Your task to perform on an android device: turn on translation in the chrome app Image 0: 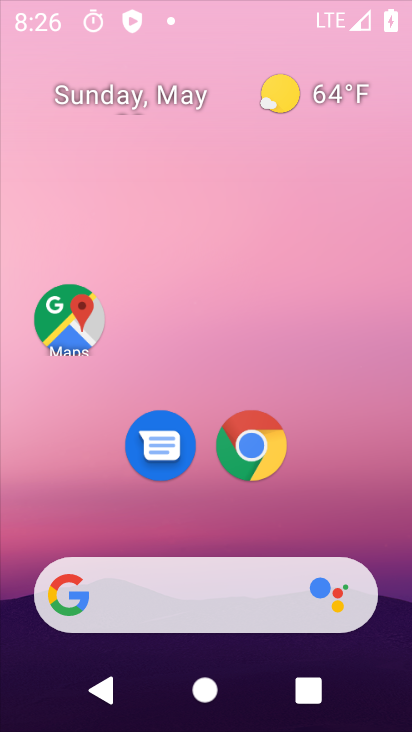
Step 0: click (335, 117)
Your task to perform on an android device: turn on translation in the chrome app Image 1: 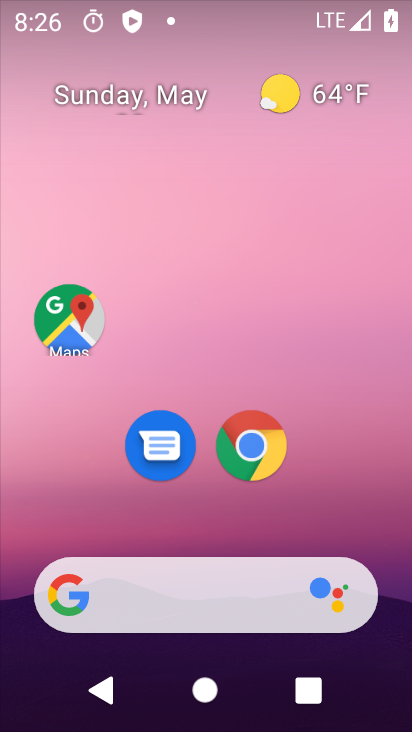
Step 1: drag from (208, 546) to (260, 140)
Your task to perform on an android device: turn on translation in the chrome app Image 2: 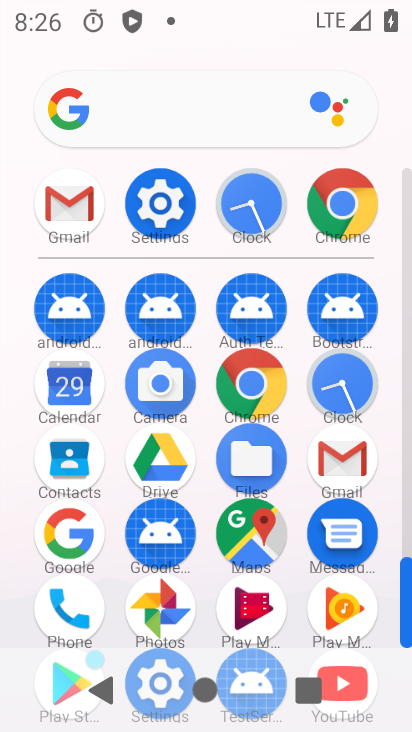
Step 2: click (342, 217)
Your task to perform on an android device: turn on translation in the chrome app Image 3: 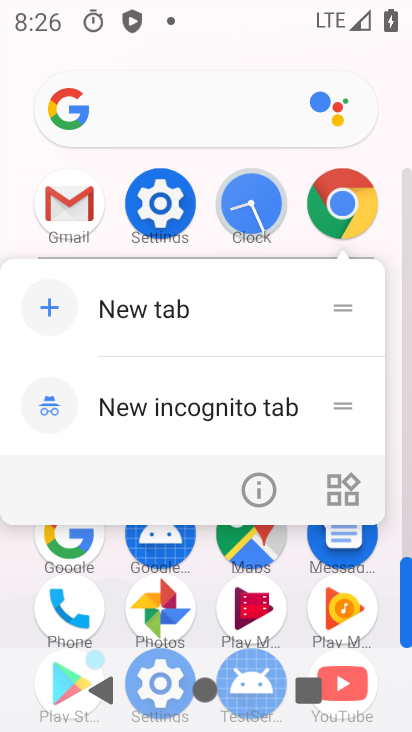
Step 3: click (268, 479)
Your task to perform on an android device: turn on translation in the chrome app Image 4: 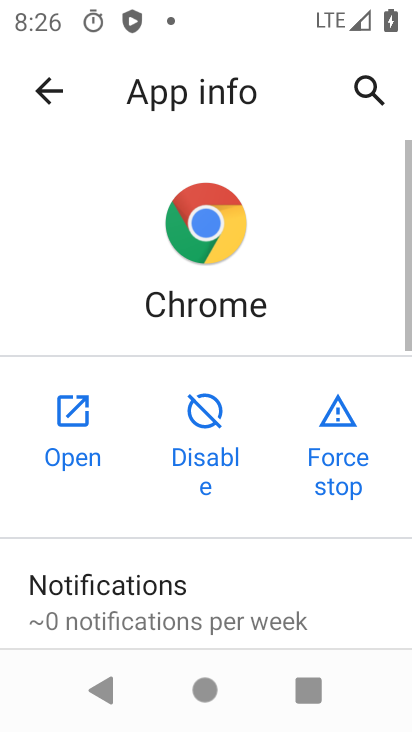
Step 4: click (65, 432)
Your task to perform on an android device: turn on translation in the chrome app Image 5: 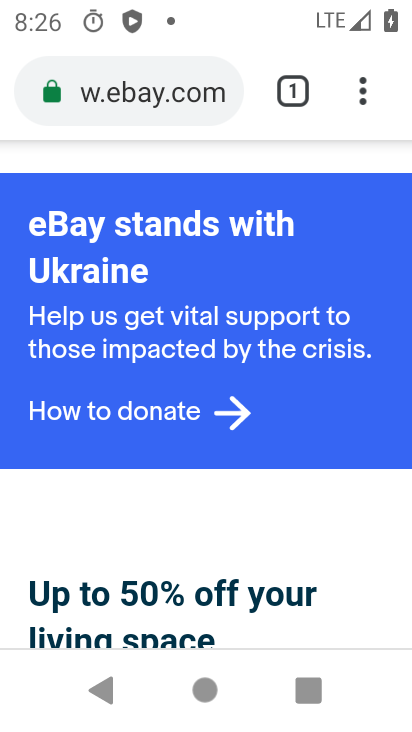
Step 5: drag from (204, 608) to (388, 126)
Your task to perform on an android device: turn on translation in the chrome app Image 6: 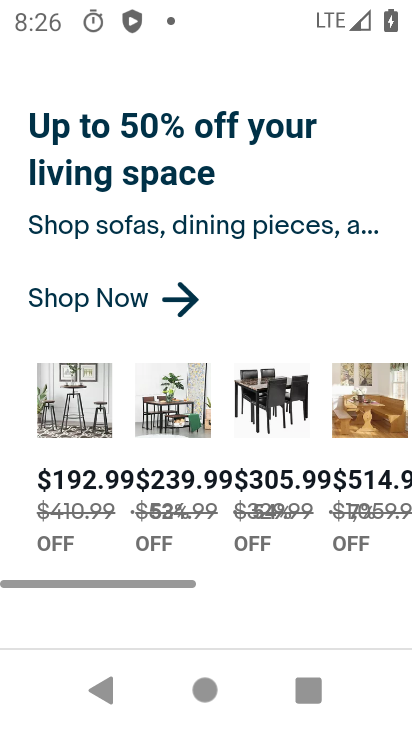
Step 6: drag from (241, 610) to (364, 729)
Your task to perform on an android device: turn on translation in the chrome app Image 7: 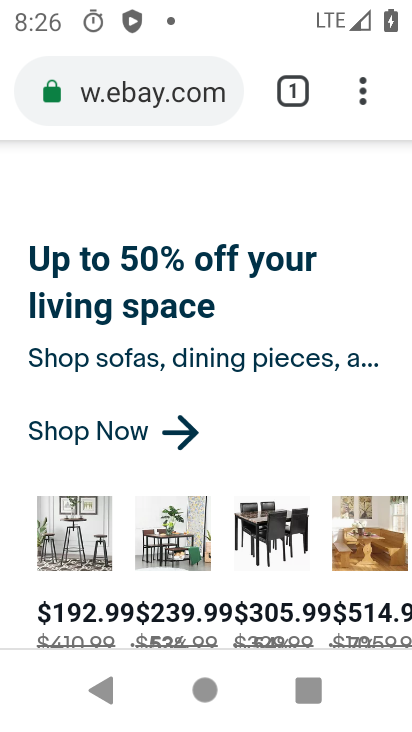
Step 7: drag from (288, 297) to (277, 416)
Your task to perform on an android device: turn on translation in the chrome app Image 8: 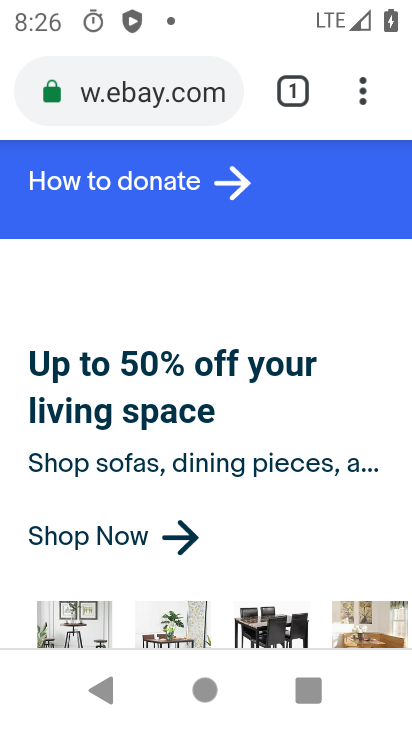
Step 8: click (362, 93)
Your task to perform on an android device: turn on translation in the chrome app Image 9: 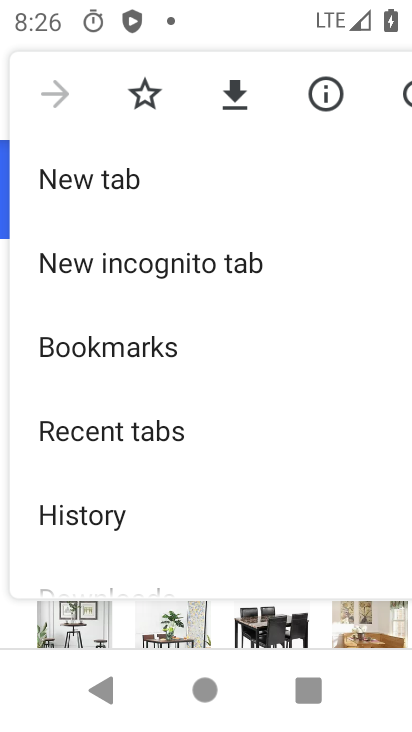
Step 9: drag from (183, 511) to (293, 97)
Your task to perform on an android device: turn on translation in the chrome app Image 10: 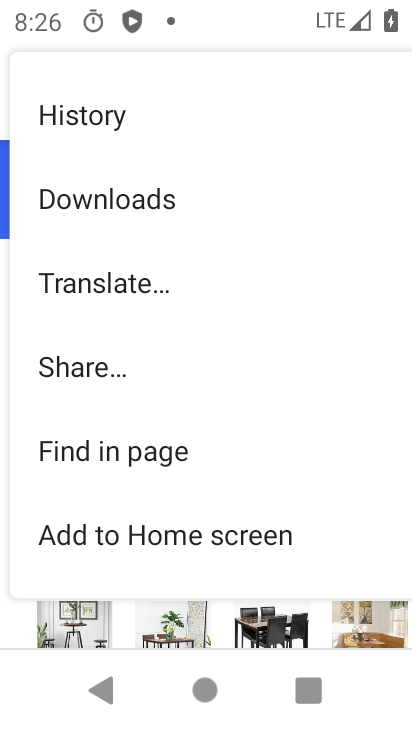
Step 10: drag from (125, 484) to (242, 85)
Your task to perform on an android device: turn on translation in the chrome app Image 11: 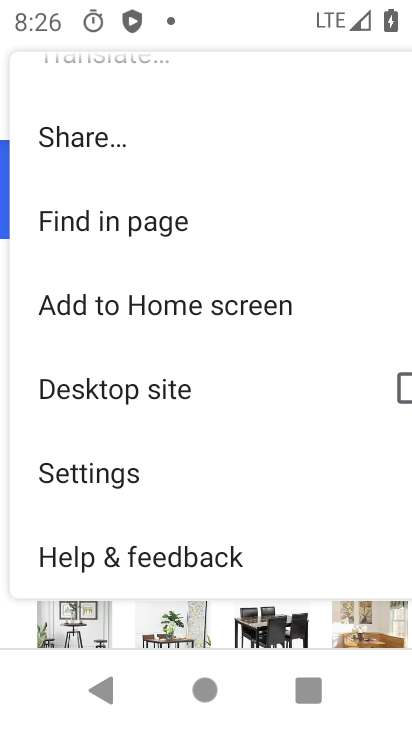
Step 11: click (135, 483)
Your task to perform on an android device: turn on translation in the chrome app Image 12: 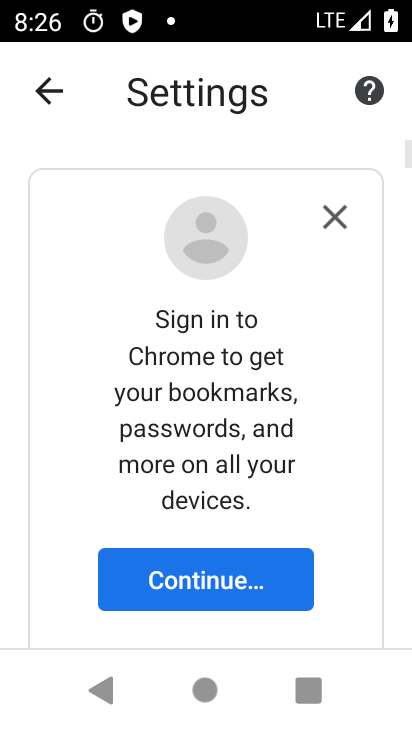
Step 12: drag from (290, 348) to (357, 38)
Your task to perform on an android device: turn on translation in the chrome app Image 13: 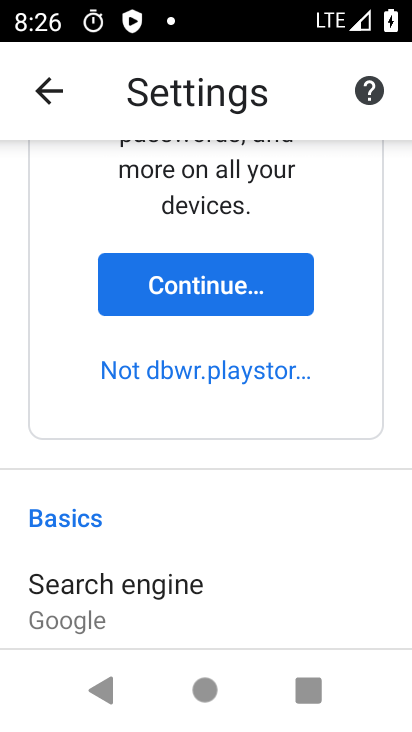
Step 13: drag from (210, 554) to (381, 11)
Your task to perform on an android device: turn on translation in the chrome app Image 14: 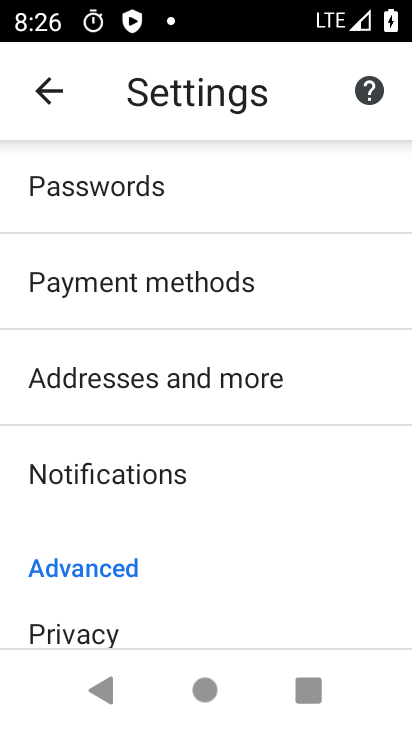
Step 14: drag from (193, 607) to (359, 14)
Your task to perform on an android device: turn on translation in the chrome app Image 15: 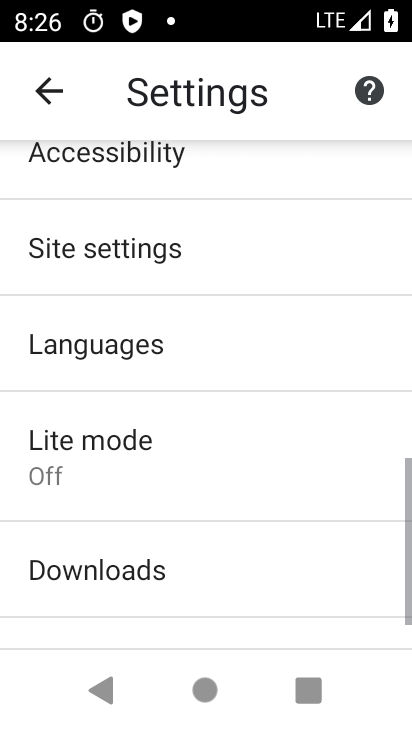
Step 15: click (175, 353)
Your task to perform on an android device: turn on translation in the chrome app Image 16: 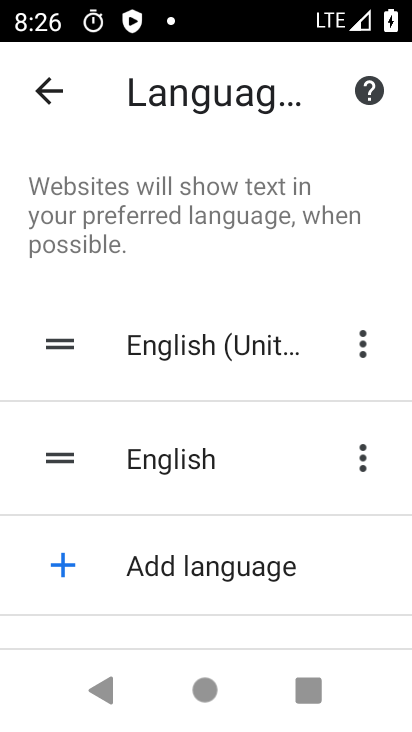
Step 16: task complete